Your task to perform on an android device: change the upload size in google photos Image 0: 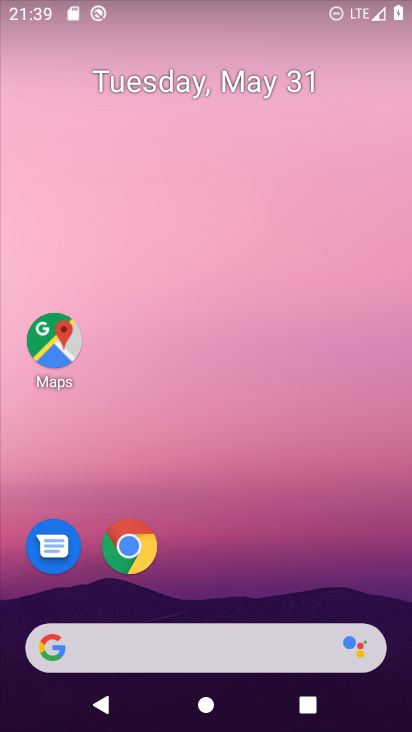
Step 0: drag from (396, 699) to (364, 173)
Your task to perform on an android device: change the upload size in google photos Image 1: 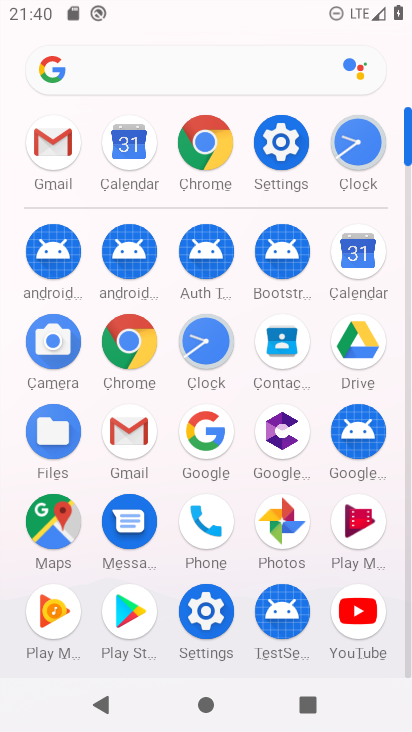
Step 1: click (276, 527)
Your task to perform on an android device: change the upload size in google photos Image 2: 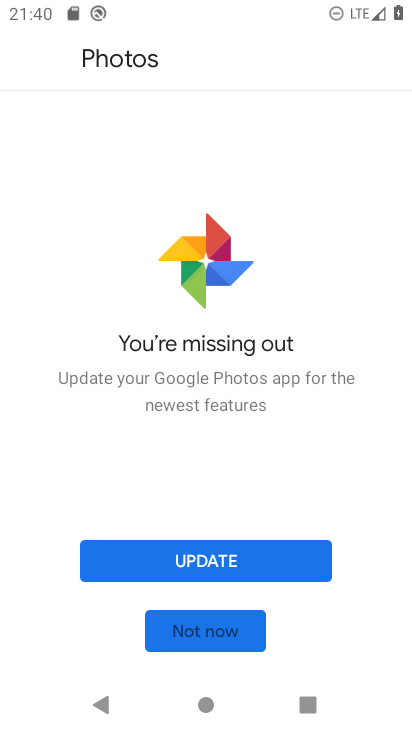
Step 2: click (190, 568)
Your task to perform on an android device: change the upload size in google photos Image 3: 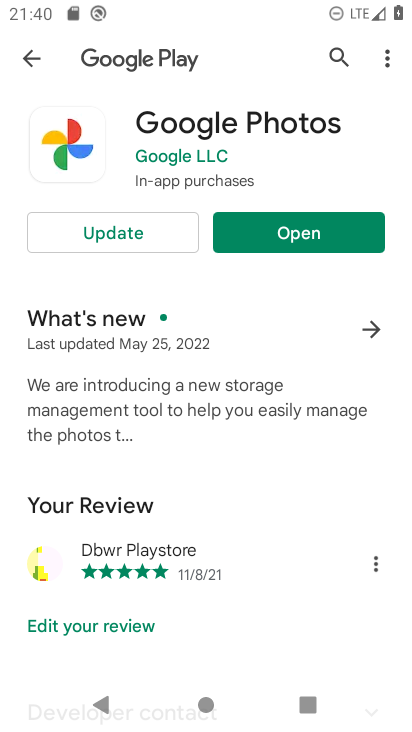
Step 3: click (148, 243)
Your task to perform on an android device: change the upload size in google photos Image 4: 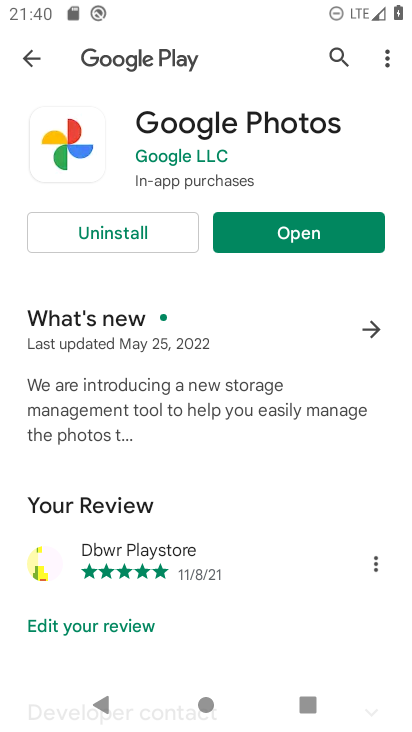
Step 4: click (268, 241)
Your task to perform on an android device: change the upload size in google photos Image 5: 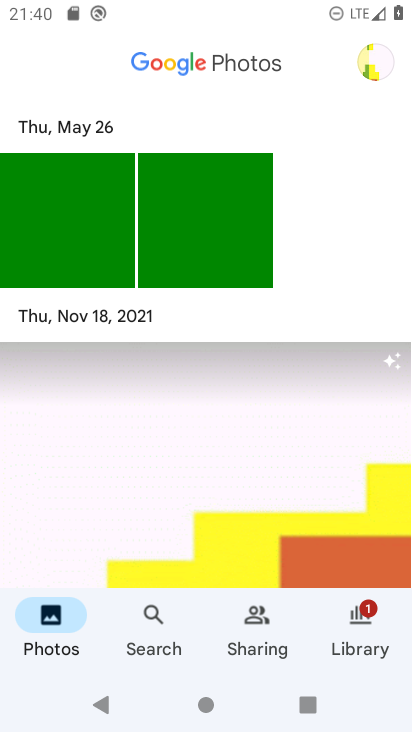
Step 5: task complete